Your task to perform on an android device: set the stopwatch Image 0: 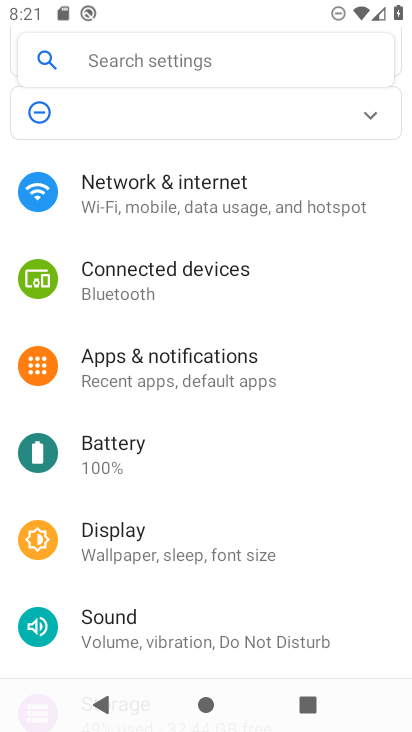
Step 0: press home button
Your task to perform on an android device: set the stopwatch Image 1: 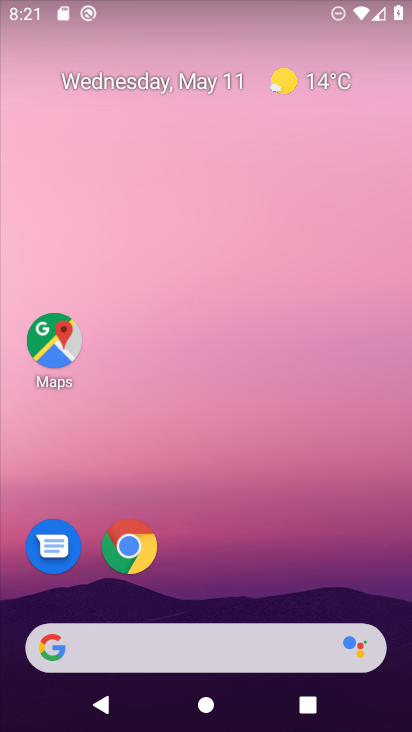
Step 1: drag from (192, 643) to (199, 185)
Your task to perform on an android device: set the stopwatch Image 2: 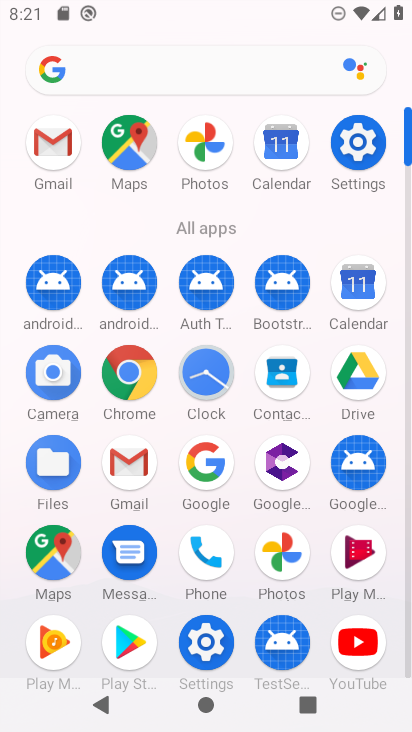
Step 2: click (205, 372)
Your task to perform on an android device: set the stopwatch Image 3: 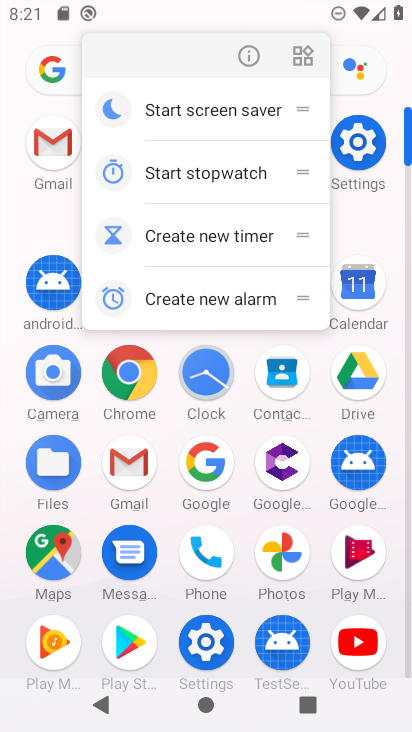
Step 3: click (195, 178)
Your task to perform on an android device: set the stopwatch Image 4: 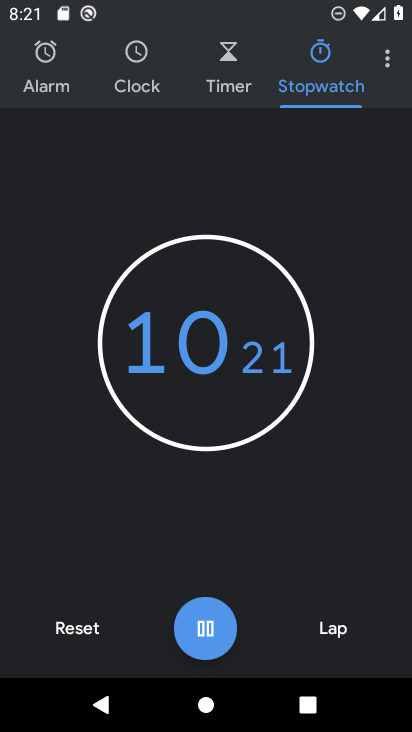
Step 4: task complete